Your task to perform on an android device: toggle pop-ups in chrome Image 0: 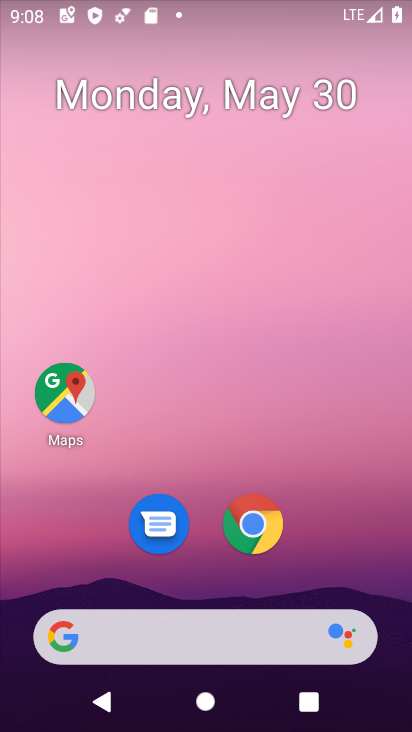
Step 0: click (260, 523)
Your task to perform on an android device: toggle pop-ups in chrome Image 1: 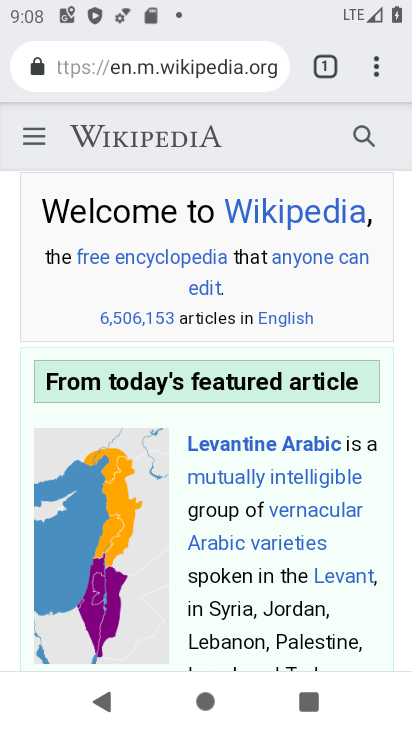
Step 1: click (372, 69)
Your task to perform on an android device: toggle pop-ups in chrome Image 2: 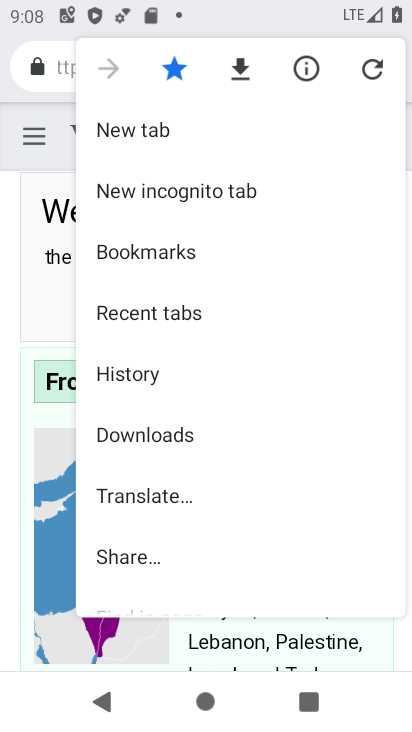
Step 2: drag from (236, 504) to (252, 157)
Your task to perform on an android device: toggle pop-ups in chrome Image 3: 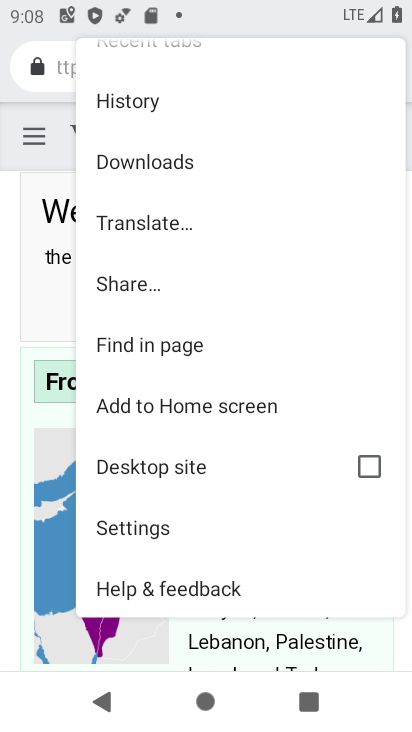
Step 3: click (183, 516)
Your task to perform on an android device: toggle pop-ups in chrome Image 4: 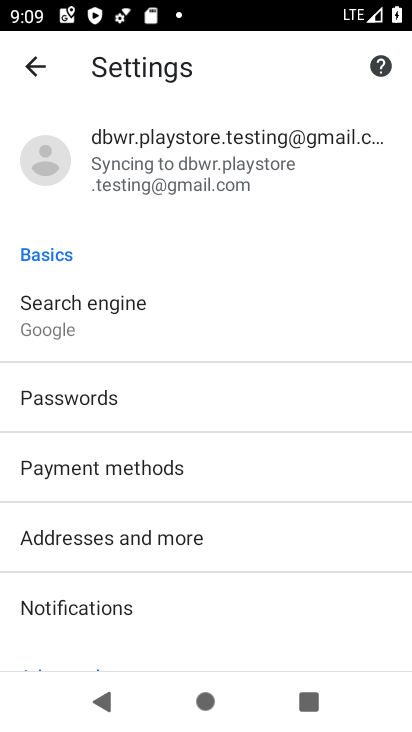
Step 4: drag from (278, 559) to (271, 245)
Your task to perform on an android device: toggle pop-ups in chrome Image 5: 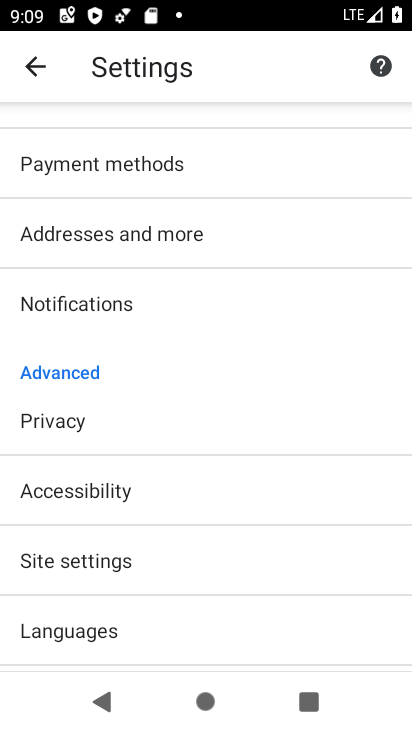
Step 5: click (248, 551)
Your task to perform on an android device: toggle pop-ups in chrome Image 6: 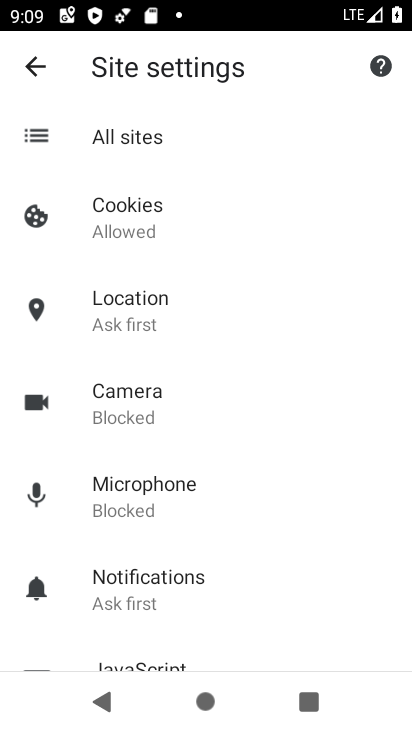
Step 6: drag from (248, 551) to (260, 333)
Your task to perform on an android device: toggle pop-ups in chrome Image 7: 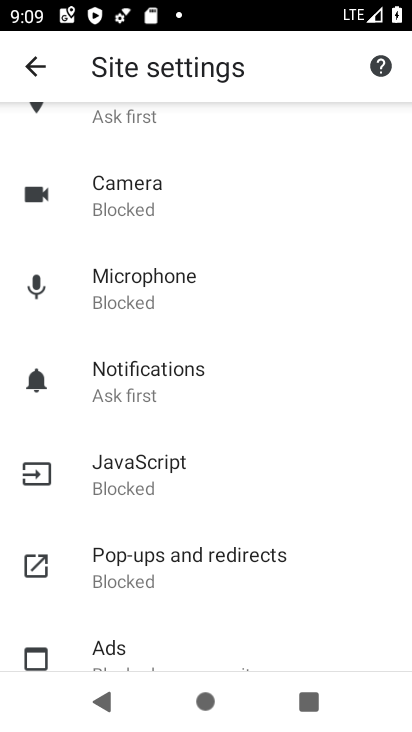
Step 7: drag from (223, 489) to (228, 310)
Your task to perform on an android device: toggle pop-ups in chrome Image 8: 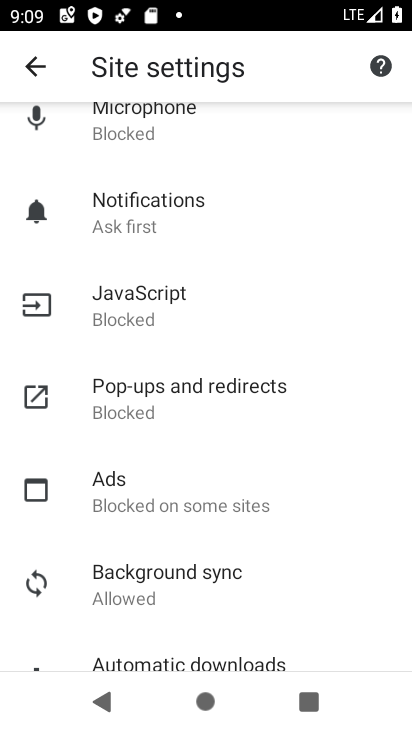
Step 8: click (227, 381)
Your task to perform on an android device: toggle pop-ups in chrome Image 9: 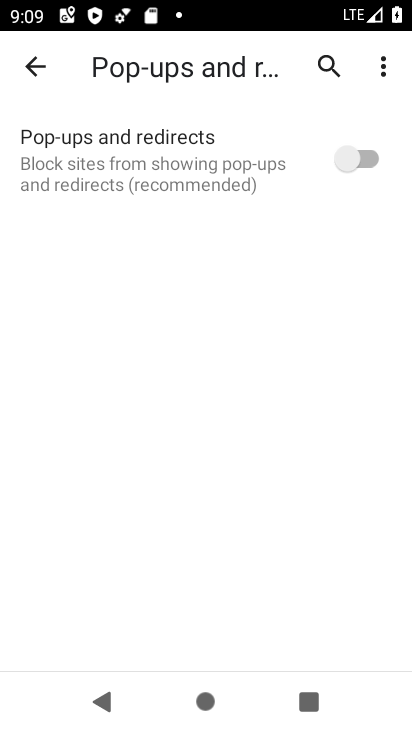
Step 9: click (347, 158)
Your task to perform on an android device: toggle pop-ups in chrome Image 10: 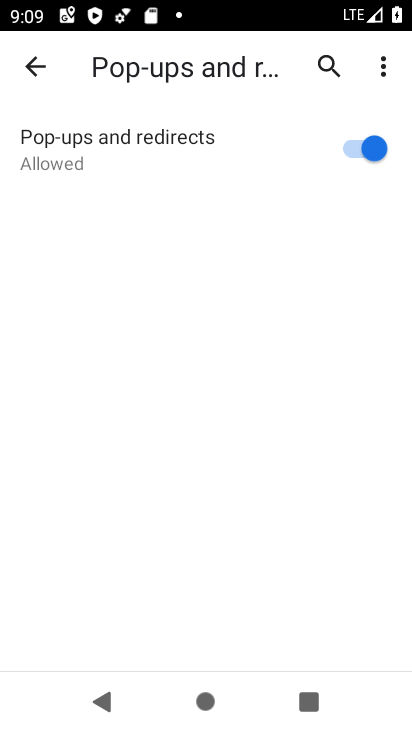
Step 10: task complete